Your task to perform on an android device: Open my contact list Image 0: 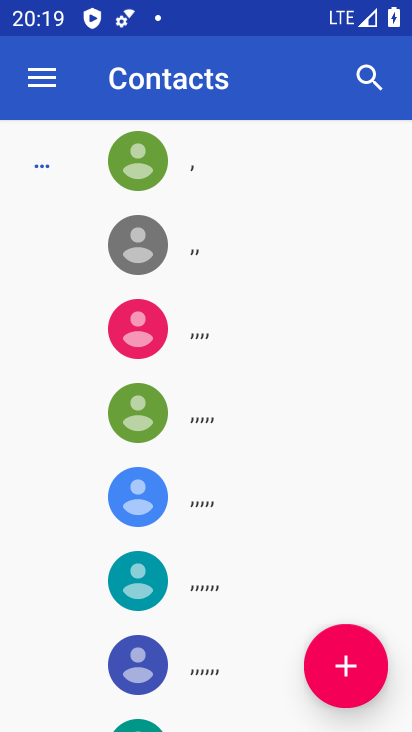
Step 0: drag from (255, 525) to (265, 247)
Your task to perform on an android device: Open my contact list Image 1: 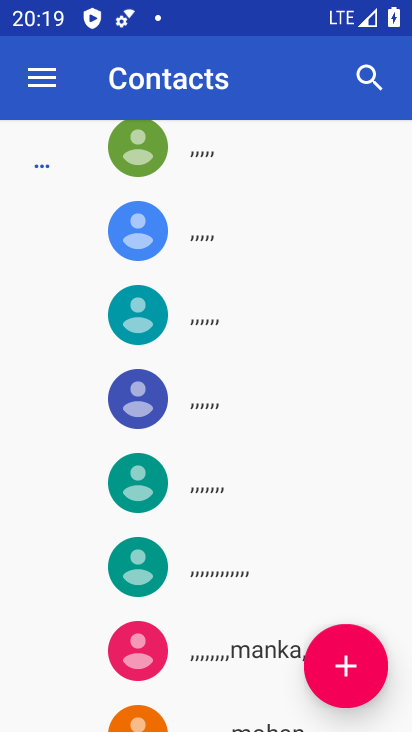
Step 1: task complete